Your task to perform on an android device: turn on wifi Image 0: 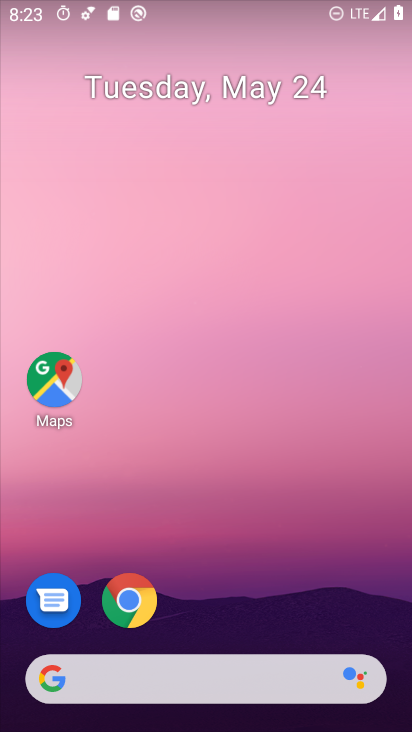
Step 0: drag from (131, 8) to (188, 590)
Your task to perform on an android device: turn on wifi Image 1: 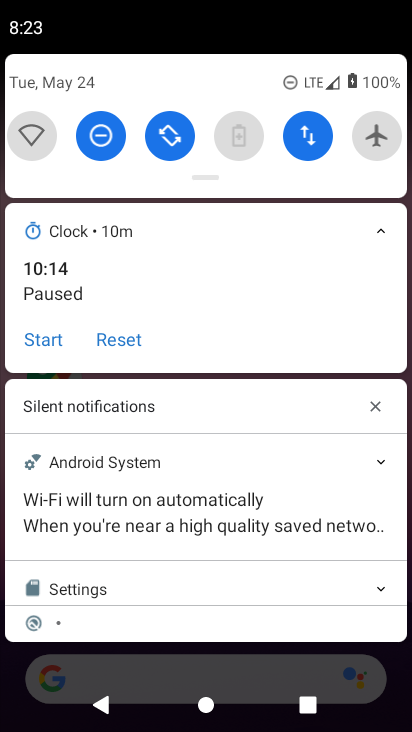
Step 1: click (35, 127)
Your task to perform on an android device: turn on wifi Image 2: 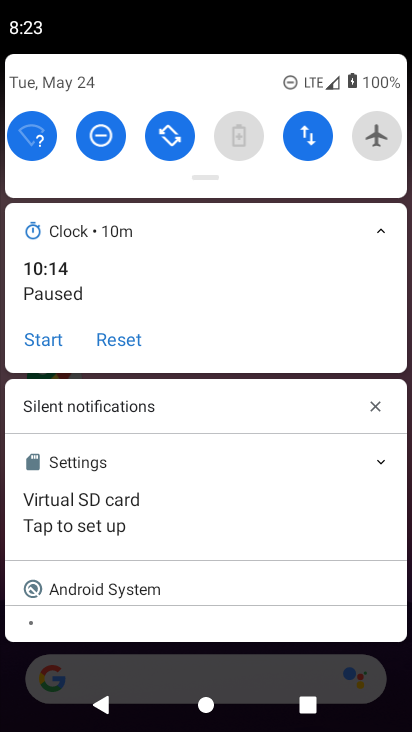
Step 2: task complete